Your task to perform on an android device: Go to ESPN.com Image 0: 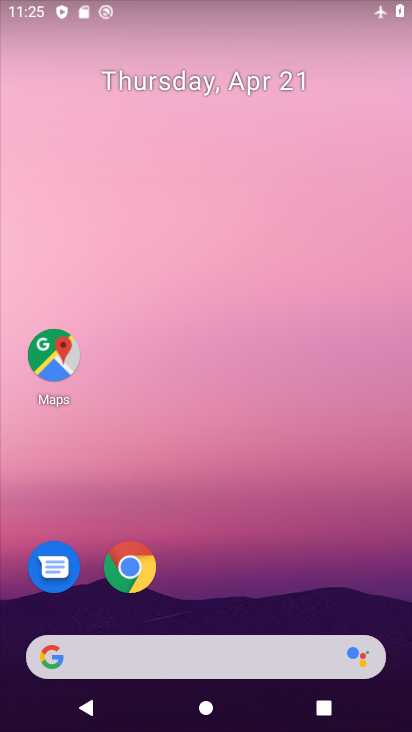
Step 0: drag from (353, 493) to (305, 90)
Your task to perform on an android device: Go to ESPN.com Image 1: 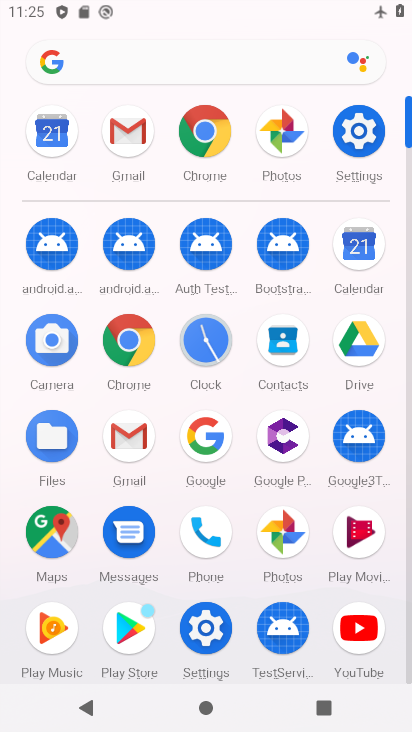
Step 1: click (130, 329)
Your task to perform on an android device: Go to ESPN.com Image 2: 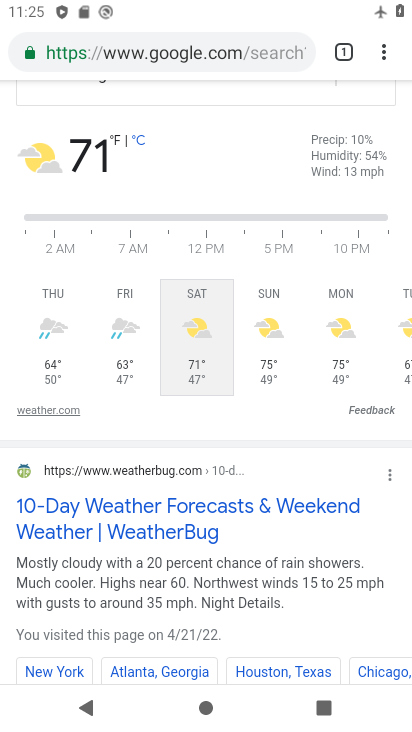
Step 2: click (147, 36)
Your task to perform on an android device: Go to ESPN.com Image 3: 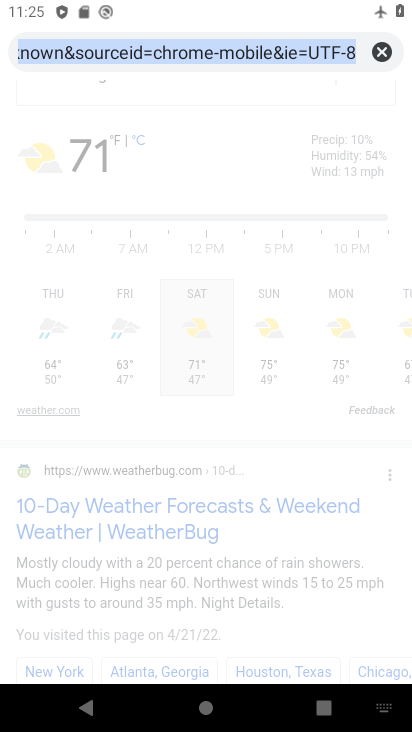
Step 3: click (380, 39)
Your task to perform on an android device: Go to ESPN.com Image 4: 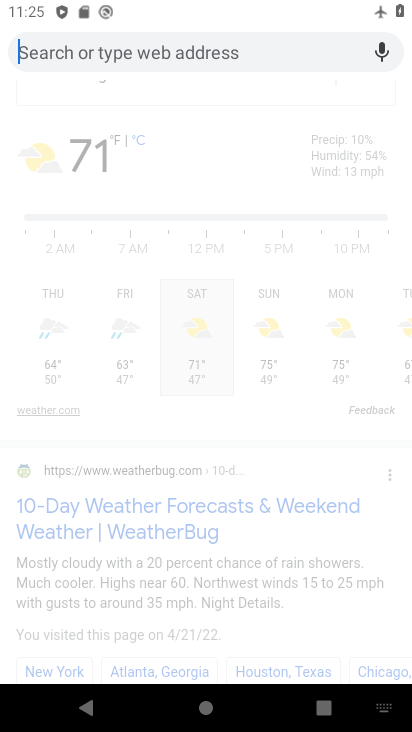
Step 4: type "espn.com"
Your task to perform on an android device: Go to ESPN.com Image 5: 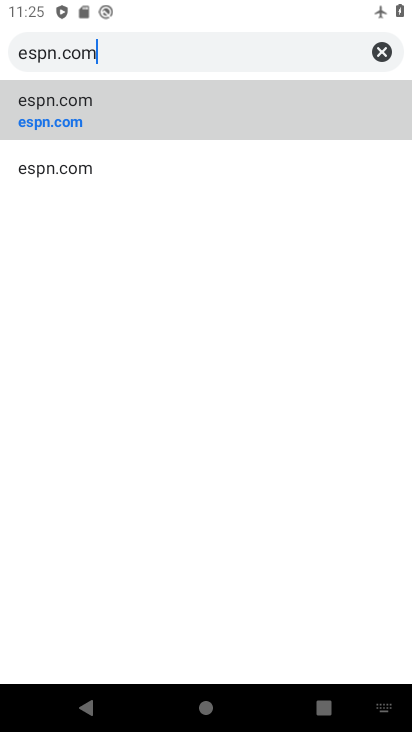
Step 5: click (52, 113)
Your task to perform on an android device: Go to ESPN.com Image 6: 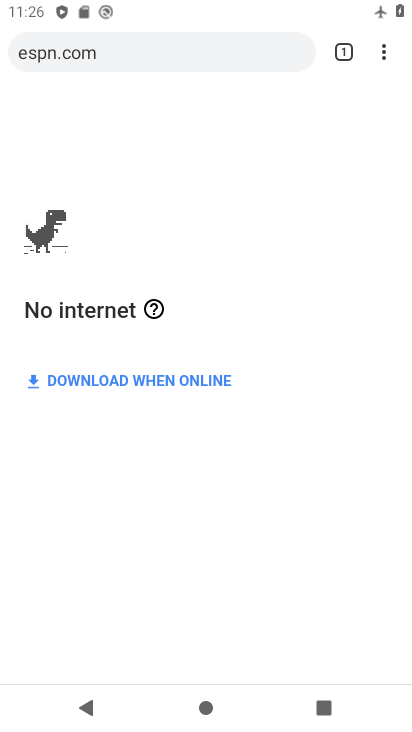
Step 6: task complete